Your task to perform on an android device: Search for sushi restaurants on Maps Image 0: 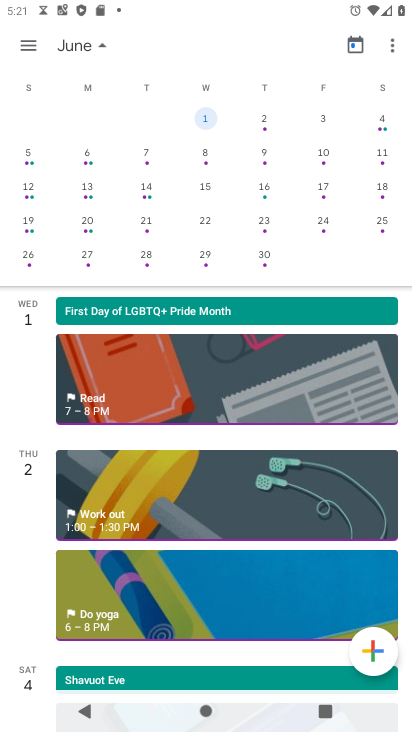
Step 0: press back button
Your task to perform on an android device: Search for sushi restaurants on Maps Image 1: 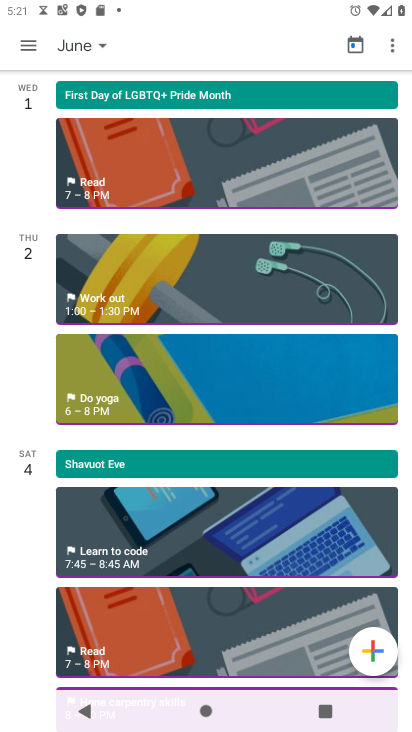
Step 1: press back button
Your task to perform on an android device: Search for sushi restaurants on Maps Image 2: 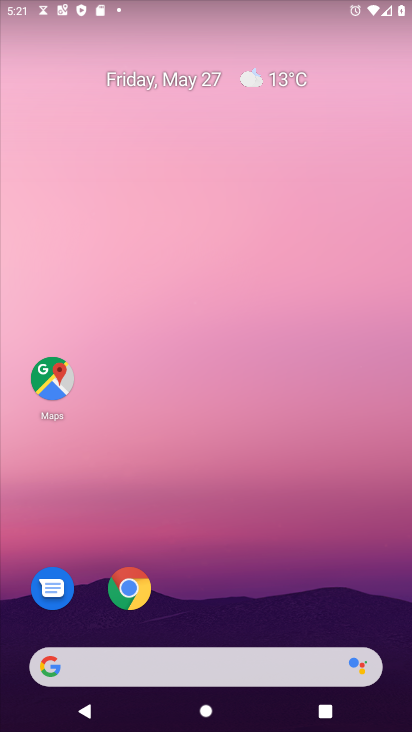
Step 2: click (48, 385)
Your task to perform on an android device: Search for sushi restaurants on Maps Image 3: 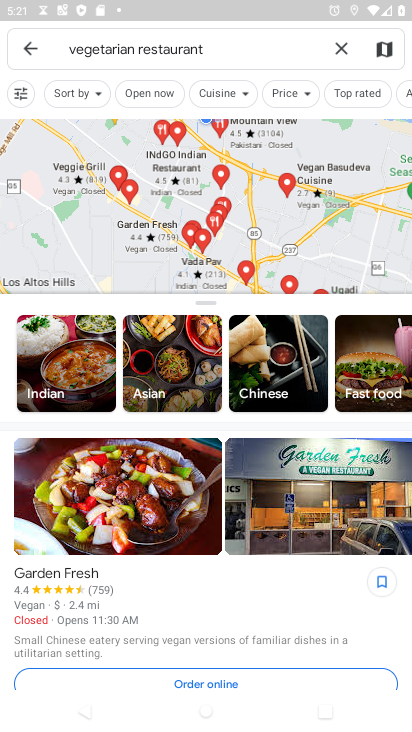
Step 3: click (341, 48)
Your task to perform on an android device: Search for sushi restaurants on Maps Image 4: 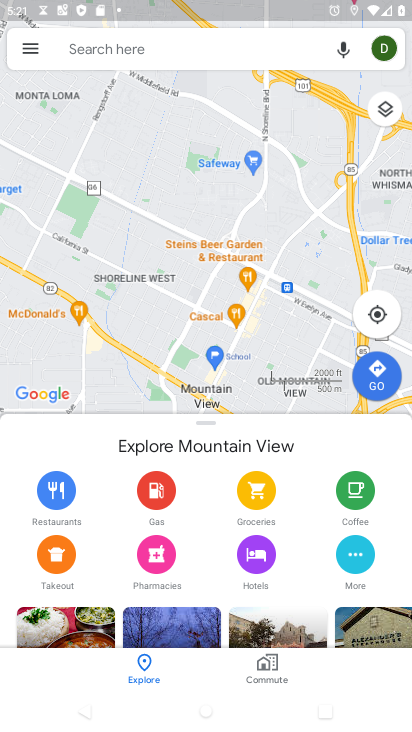
Step 4: click (69, 32)
Your task to perform on an android device: Search for sushi restaurants on Maps Image 5: 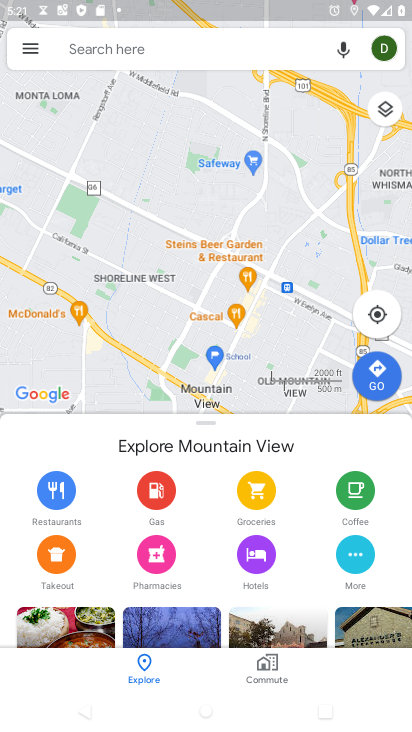
Step 5: click (113, 46)
Your task to perform on an android device: Search for sushi restaurants on Maps Image 6: 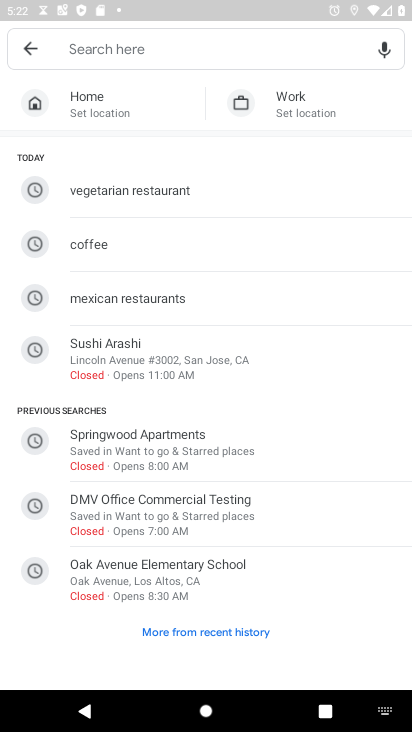
Step 6: type "sushi restaurants"
Your task to perform on an android device: Search for sushi restaurants on Maps Image 7: 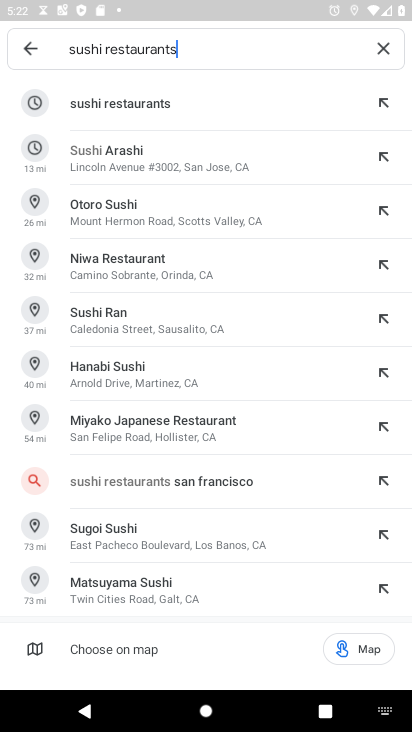
Step 7: click (135, 109)
Your task to perform on an android device: Search for sushi restaurants on Maps Image 8: 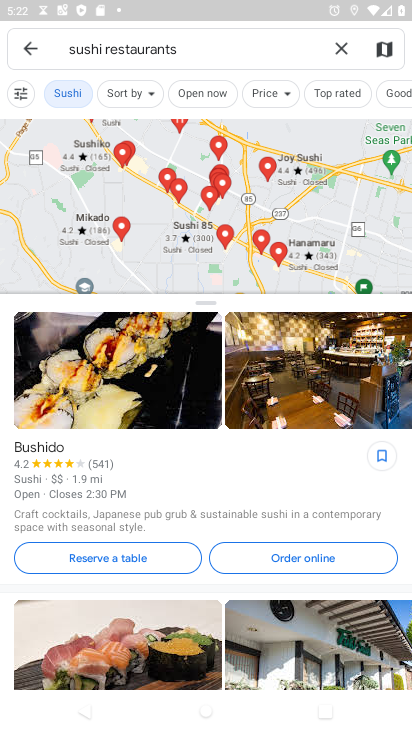
Step 8: task complete